Your task to perform on an android device: Go to battery settings Image 0: 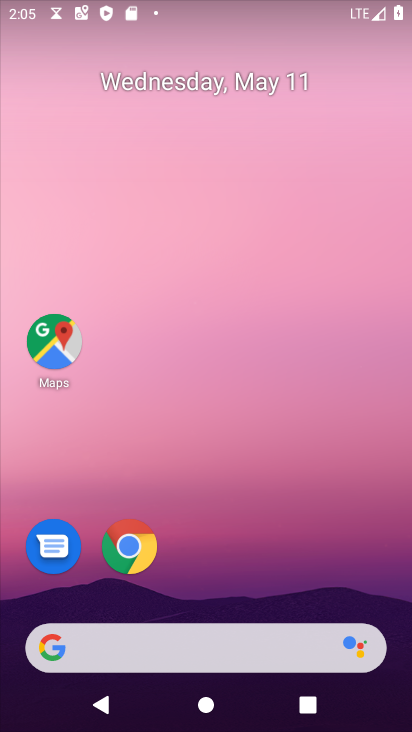
Step 0: drag from (319, 637) to (242, 29)
Your task to perform on an android device: Go to battery settings Image 1: 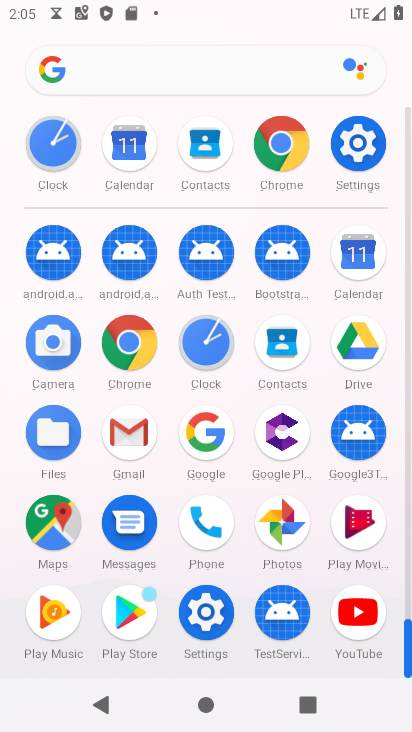
Step 1: click (354, 132)
Your task to perform on an android device: Go to battery settings Image 2: 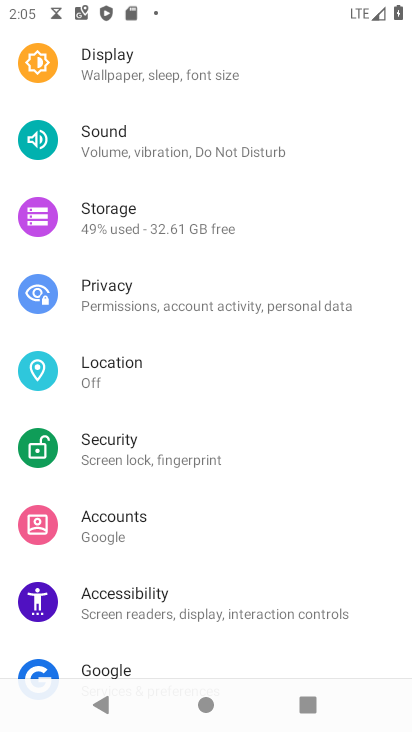
Step 2: drag from (180, 165) to (275, 611)
Your task to perform on an android device: Go to battery settings Image 3: 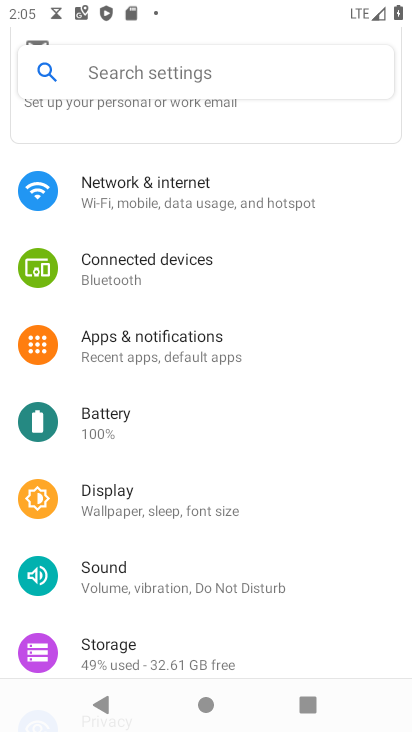
Step 3: click (125, 414)
Your task to perform on an android device: Go to battery settings Image 4: 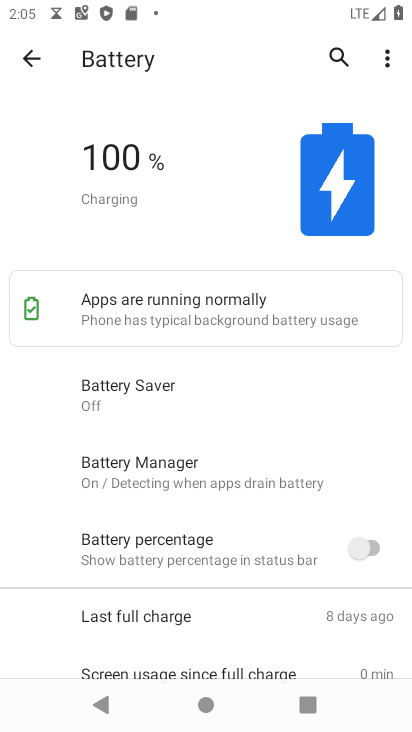
Step 4: task complete